Your task to perform on an android device: Open network settings Image 0: 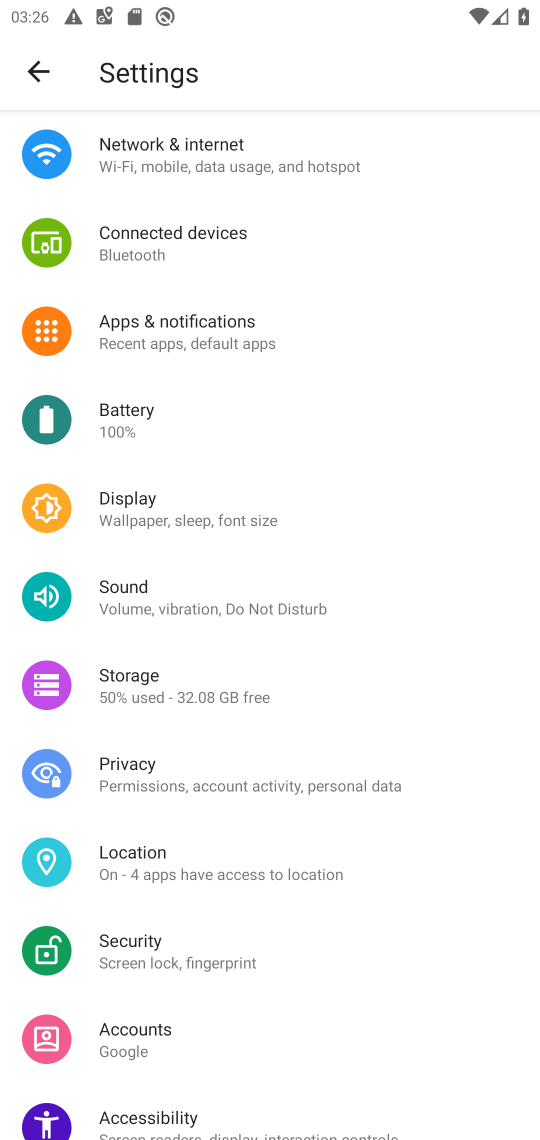
Step 0: click (120, 157)
Your task to perform on an android device: Open network settings Image 1: 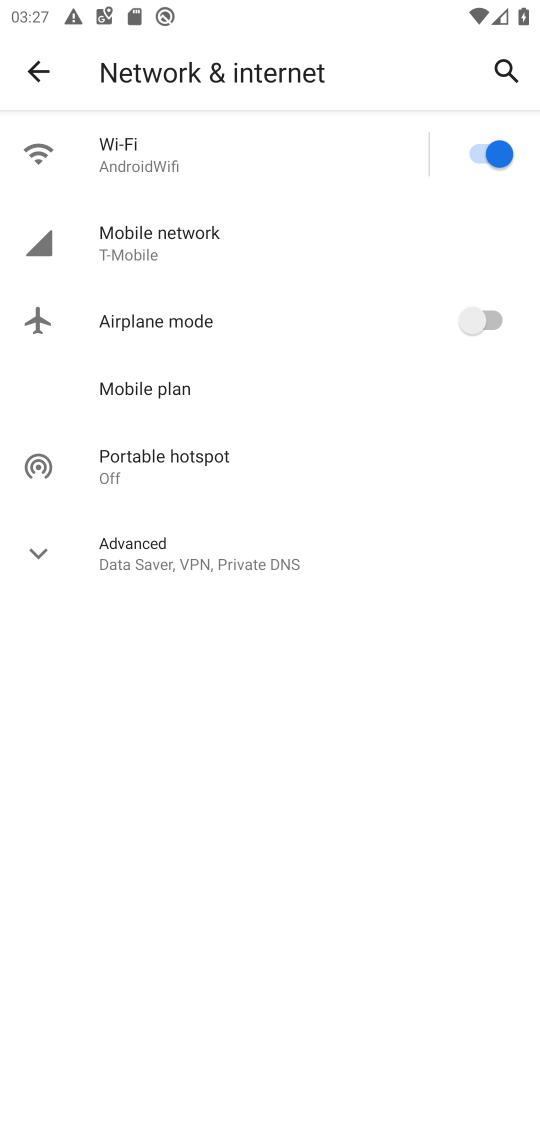
Step 1: task complete